Your task to perform on an android device: Open maps Image 0: 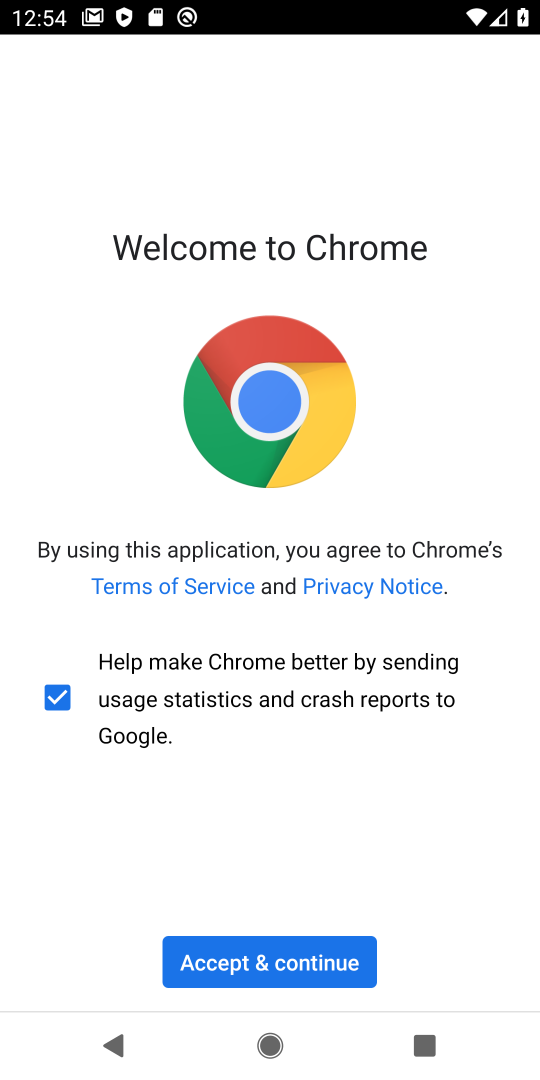
Step 0: press home button
Your task to perform on an android device: Open maps Image 1: 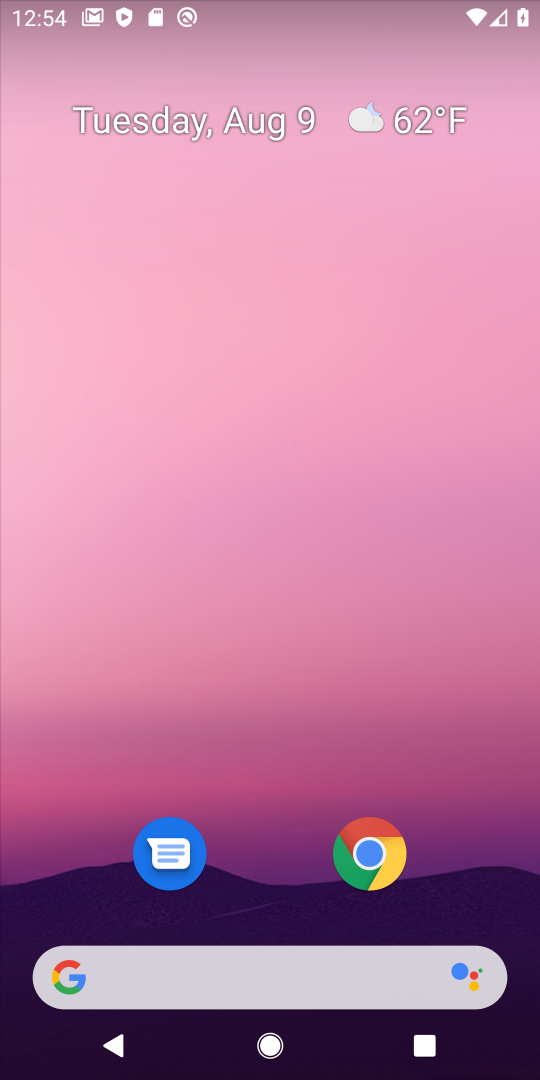
Step 1: drag from (263, 951) to (136, 406)
Your task to perform on an android device: Open maps Image 2: 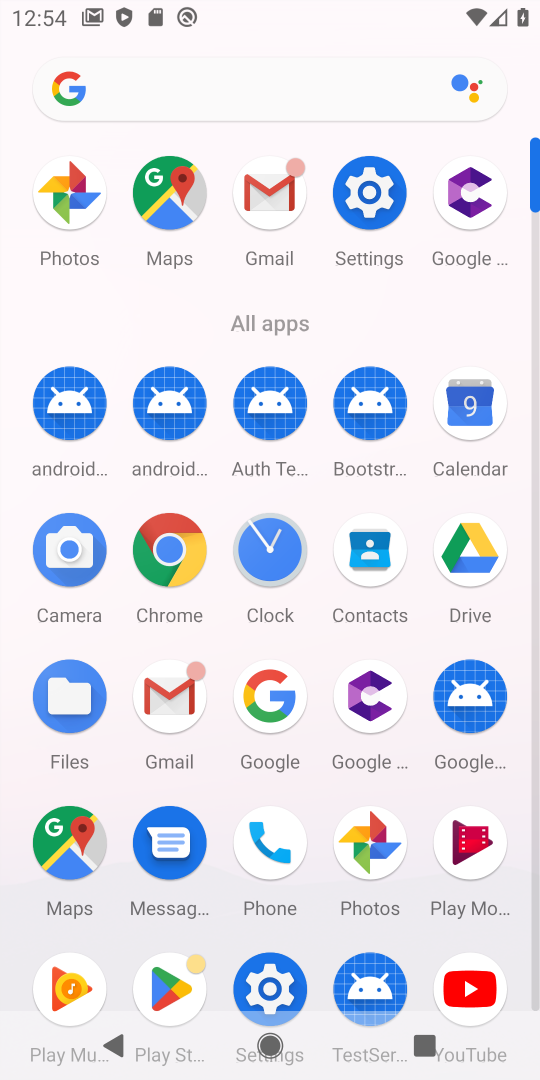
Step 2: click (87, 826)
Your task to perform on an android device: Open maps Image 3: 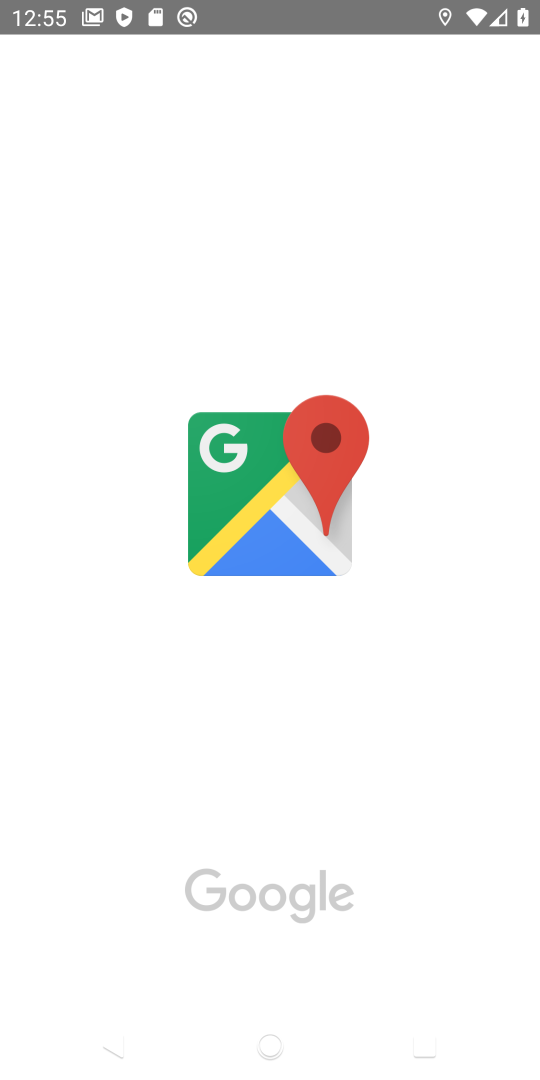
Step 3: task complete